Your task to perform on an android device: Check the weather Image 0: 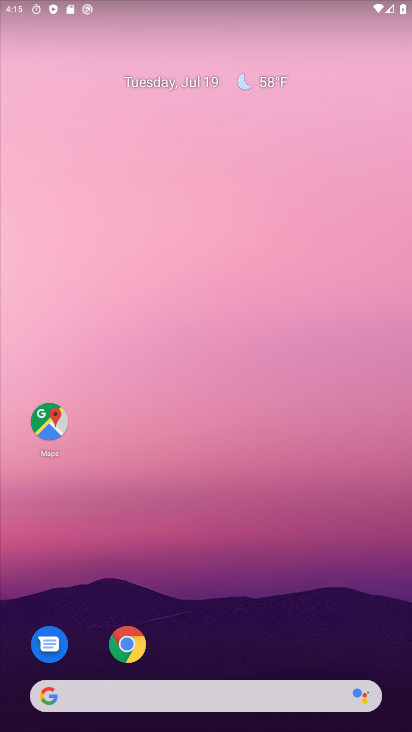
Step 0: drag from (311, 526) to (253, 58)
Your task to perform on an android device: Check the weather Image 1: 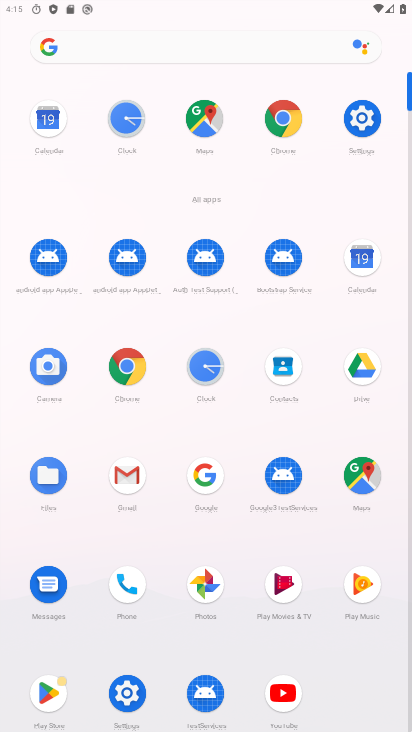
Step 1: click (282, 123)
Your task to perform on an android device: Check the weather Image 2: 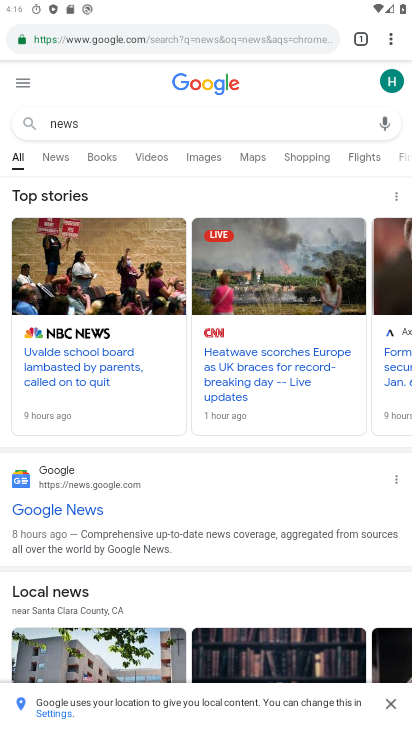
Step 2: click (293, 128)
Your task to perform on an android device: Check the weather Image 3: 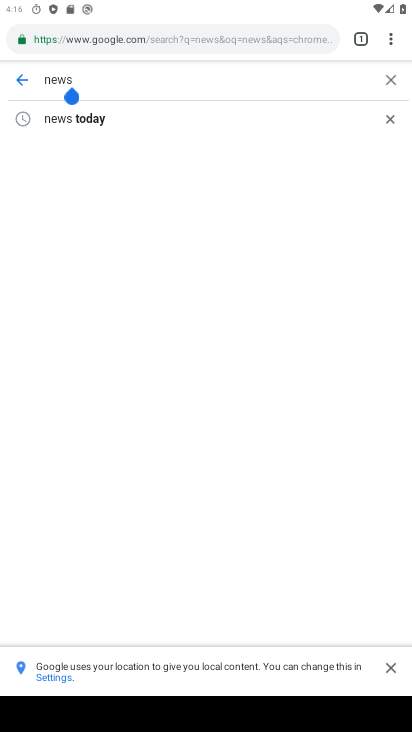
Step 3: click (393, 75)
Your task to perform on an android device: Check the weather Image 4: 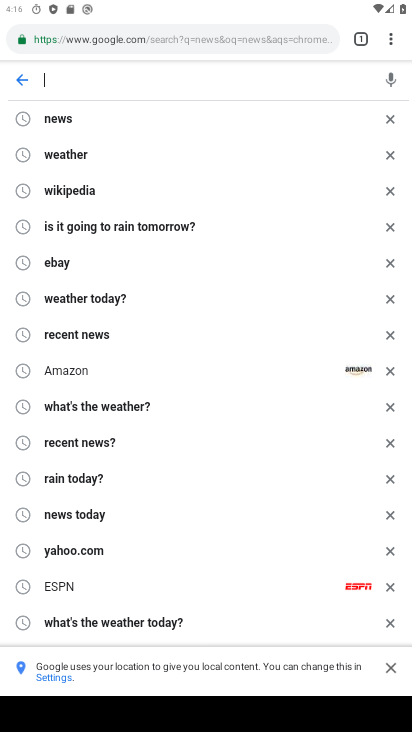
Step 4: type "weather"
Your task to perform on an android device: Check the weather Image 5: 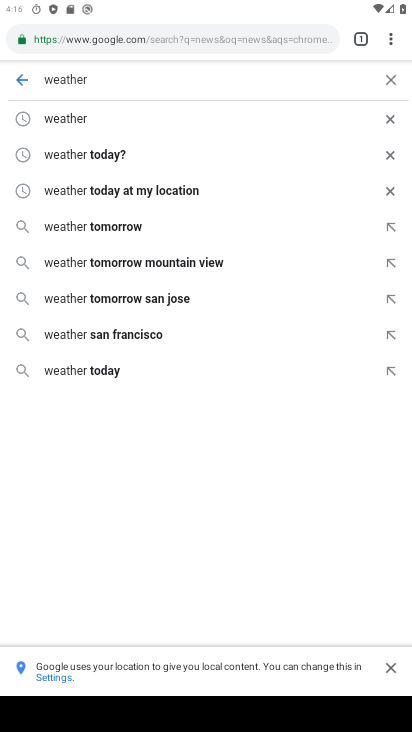
Step 5: click (74, 111)
Your task to perform on an android device: Check the weather Image 6: 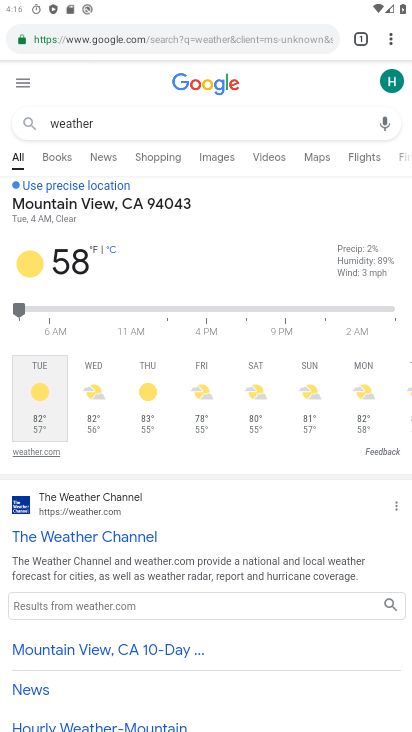
Step 6: task complete